Your task to perform on an android device: change the clock display to show seconds Image 0: 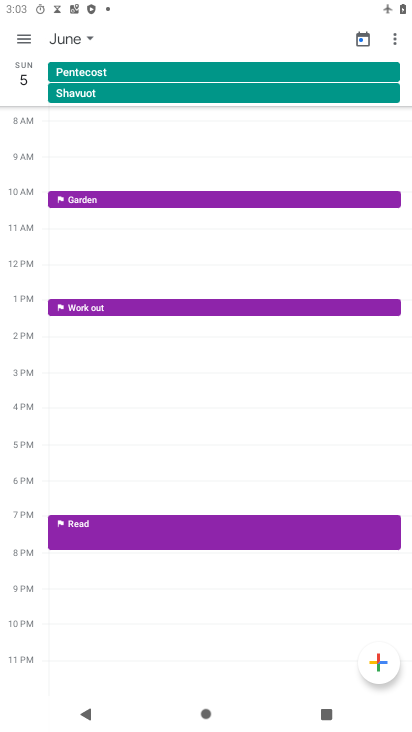
Step 0: press home button
Your task to perform on an android device: change the clock display to show seconds Image 1: 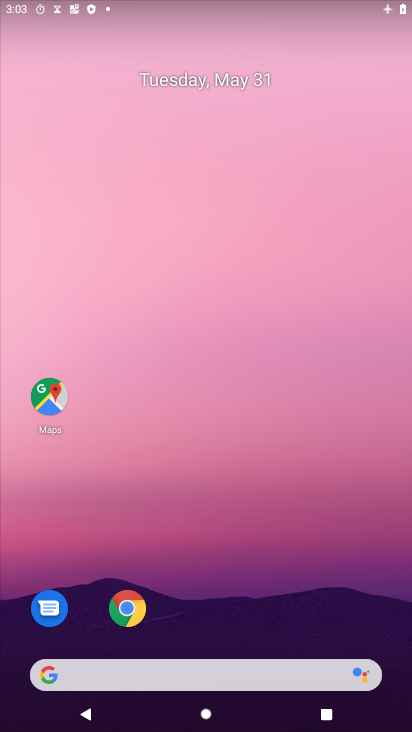
Step 1: drag from (178, 637) to (292, 179)
Your task to perform on an android device: change the clock display to show seconds Image 2: 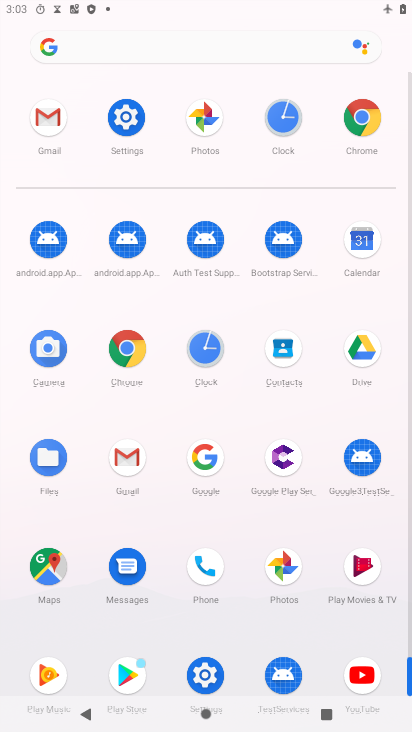
Step 2: click (207, 365)
Your task to perform on an android device: change the clock display to show seconds Image 3: 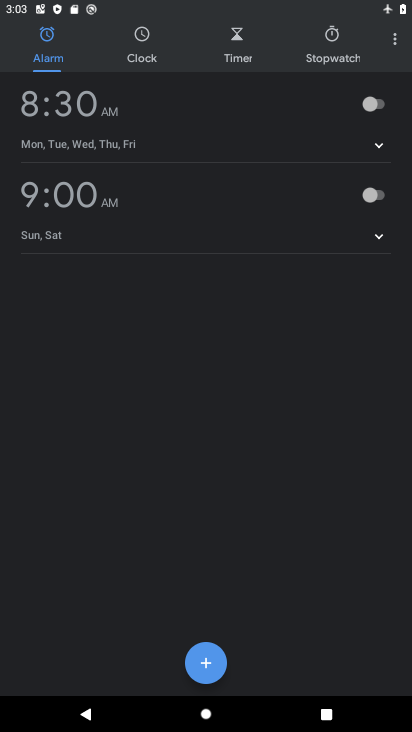
Step 3: click (396, 36)
Your task to perform on an android device: change the clock display to show seconds Image 4: 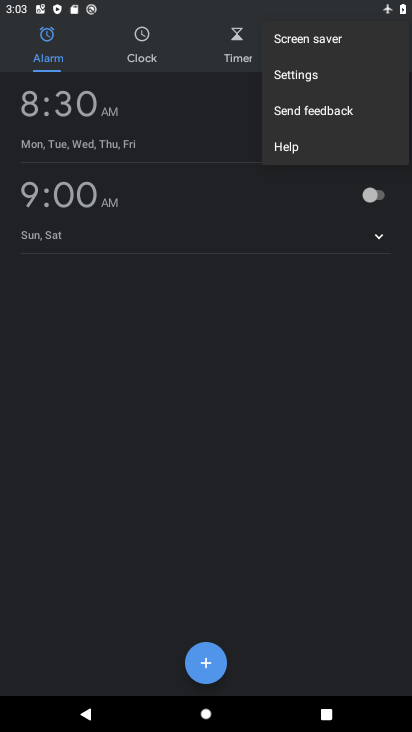
Step 4: click (298, 76)
Your task to perform on an android device: change the clock display to show seconds Image 5: 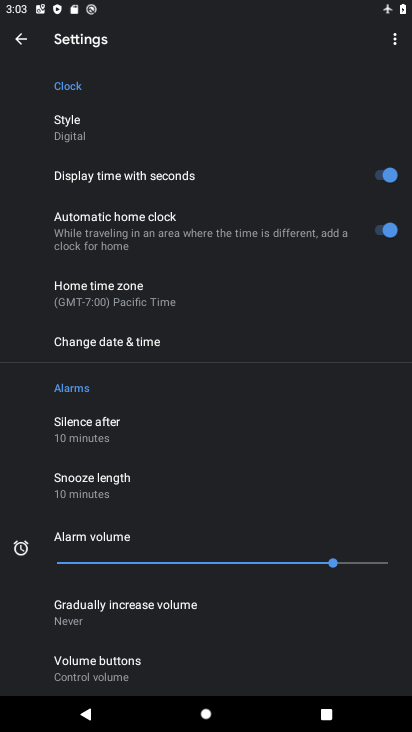
Step 5: task complete